Your task to perform on an android device: Search for Italian restaurants on Maps Image 0: 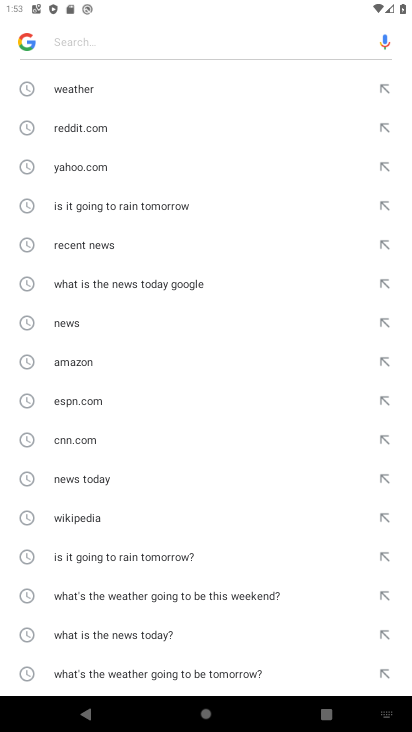
Step 0: press back button
Your task to perform on an android device: Search for Italian restaurants on Maps Image 1: 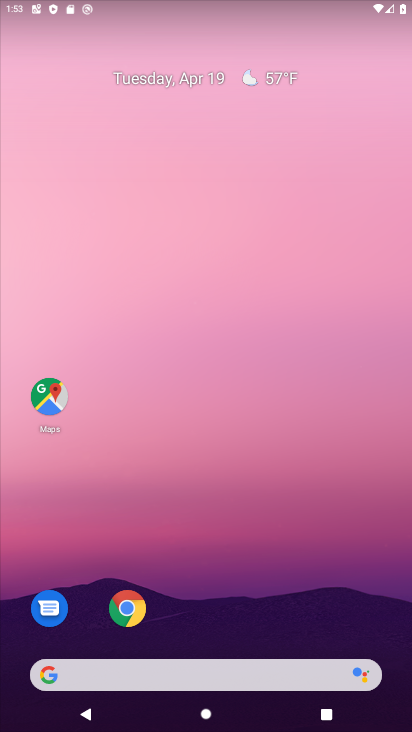
Step 1: drag from (169, 491) to (184, 327)
Your task to perform on an android device: Search for Italian restaurants on Maps Image 2: 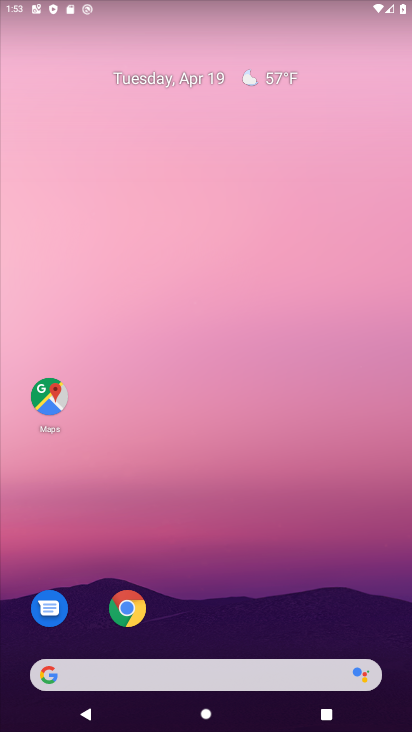
Step 2: click (52, 397)
Your task to perform on an android device: Search for Italian restaurants on Maps Image 3: 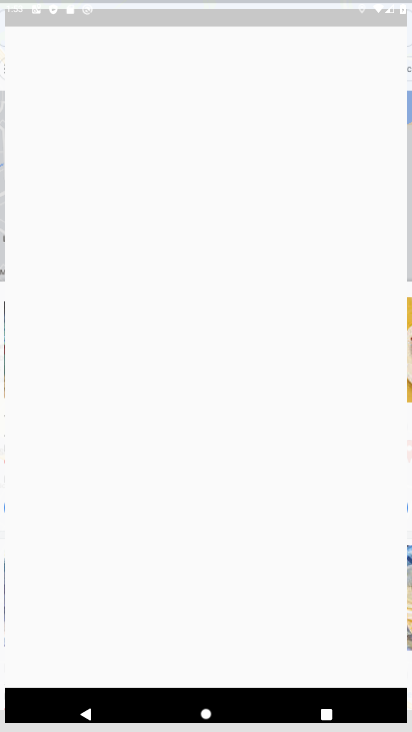
Step 3: click (349, 49)
Your task to perform on an android device: Search for Italian restaurants on Maps Image 4: 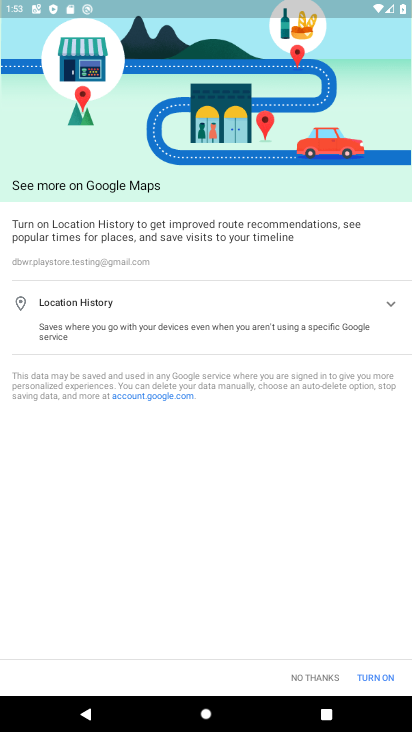
Step 4: click (361, 670)
Your task to perform on an android device: Search for Italian restaurants on Maps Image 5: 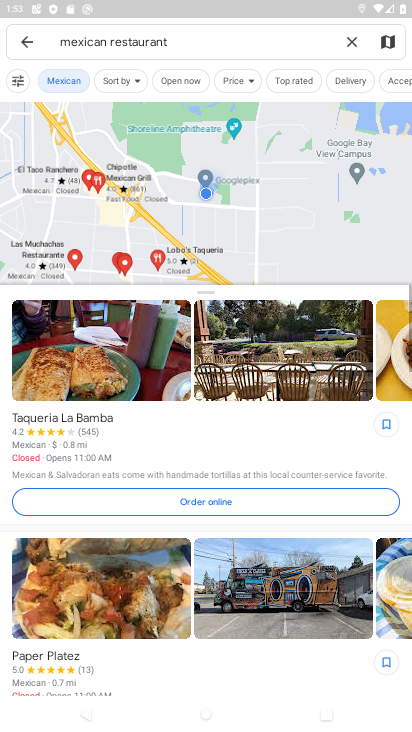
Step 5: click (348, 47)
Your task to perform on an android device: Search for Italian restaurants on Maps Image 6: 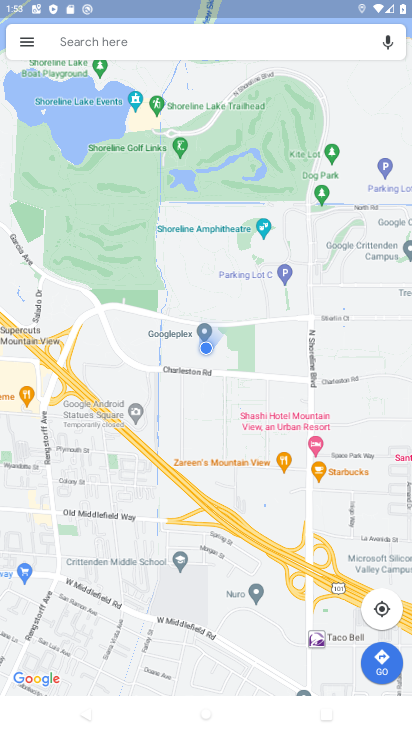
Step 6: click (116, 40)
Your task to perform on an android device: Search for Italian restaurants on Maps Image 7: 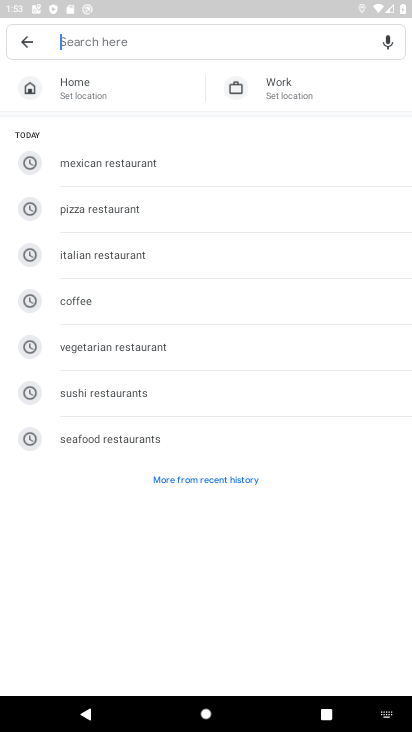
Step 7: click (91, 254)
Your task to perform on an android device: Search for Italian restaurants on Maps Image 8: 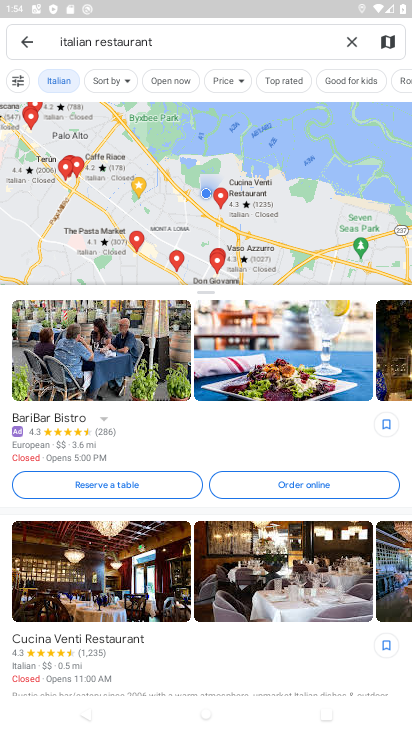
Step 8: task complete